Your task to perform on an android device: toggle show notifications on the lock screen Image 0: 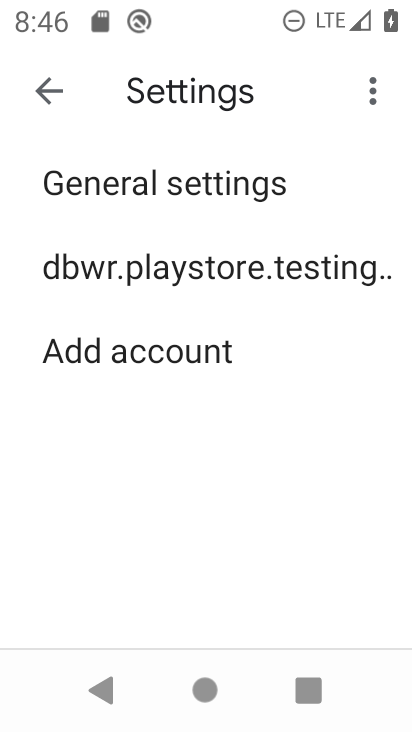
Step 0: press home button
Your task to perform on an android device: toggle show notifications on the lock screen Image 1: 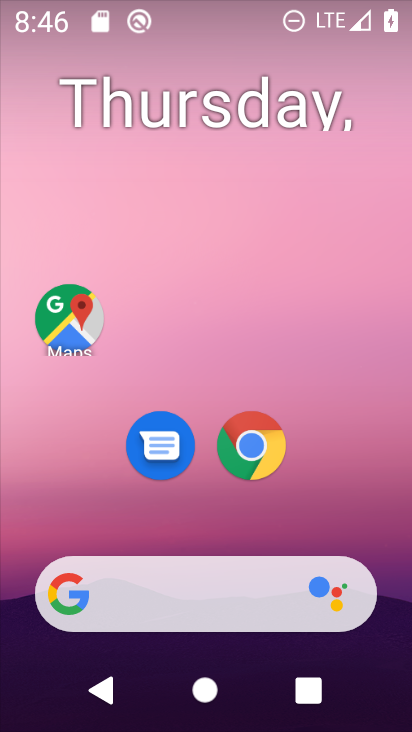
Step 1: drag from (395, 617) to (326, 88)
Your task to perform on an android device: toggle show notifications on the lock screen Image 2: 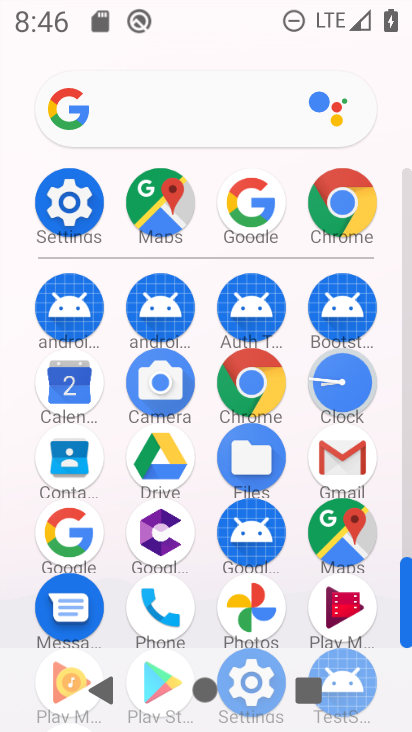
Step 2: click (68, 201)
Your task to perform on an android device: toggle show notifications on the lock screen Image 3: 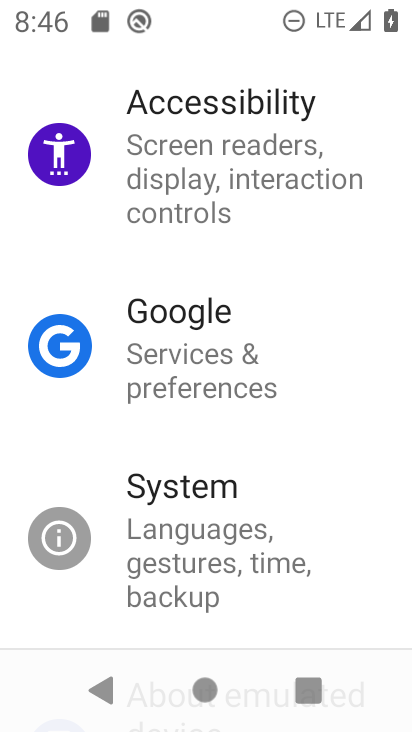
Step 3: drag from (179, 153) to (201, 606)
Your task to perform on an android device: toggle show notifications on the lock screen Image 4: 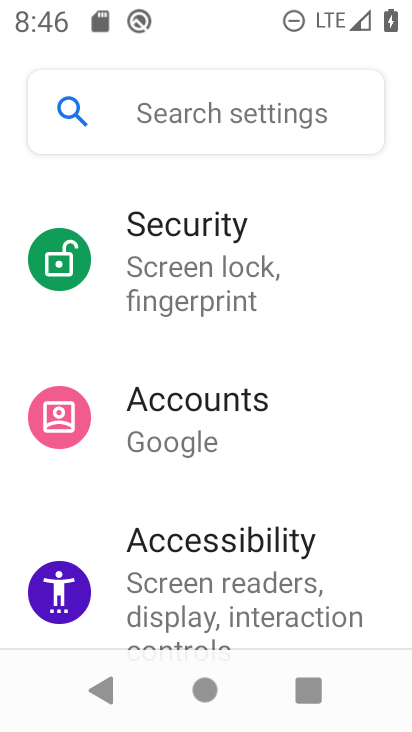
Step 4: drag from (200, 239) to (205, 634)
Your task to perform on an android device: toggle show notifications on the lock screen Image 5: 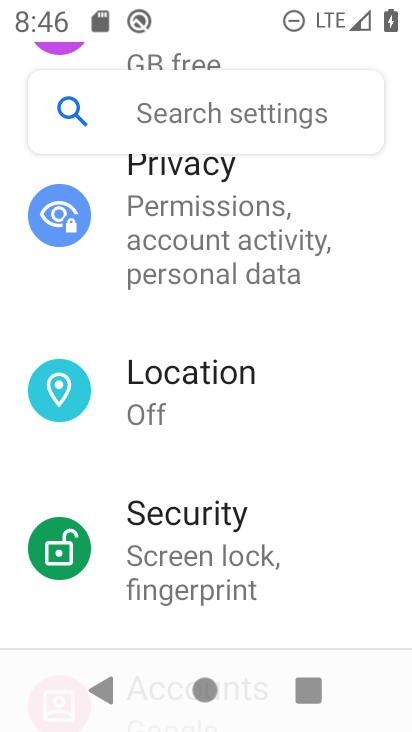
Step 5: drag from (195, 239) to (216, 660)
Your task to perform on an android device: toggle show notifications on the lock screen Image 6: 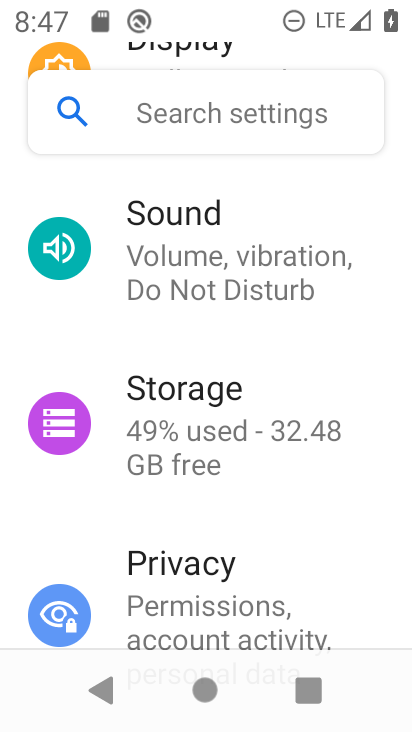
Step 6: drag from (236, 255) to (242, 668)
Your task to perform on an android device: toggle show notifications on the lock screen Image 7: 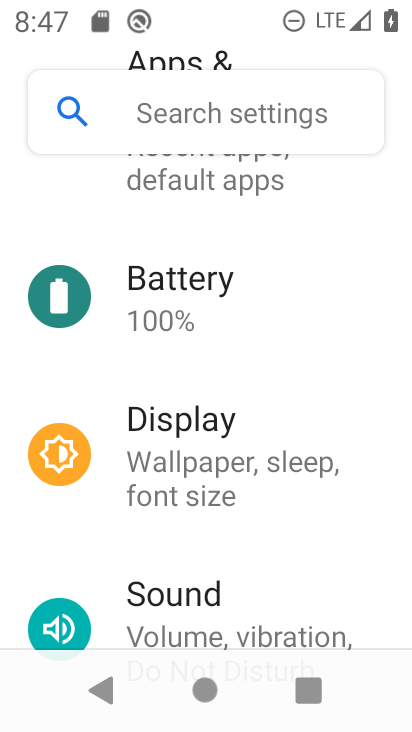
Step 7: drag from (231, 254) to (227, 587)
Your task to perform on an android device: toggle show notifications on the lock screen Image 8: 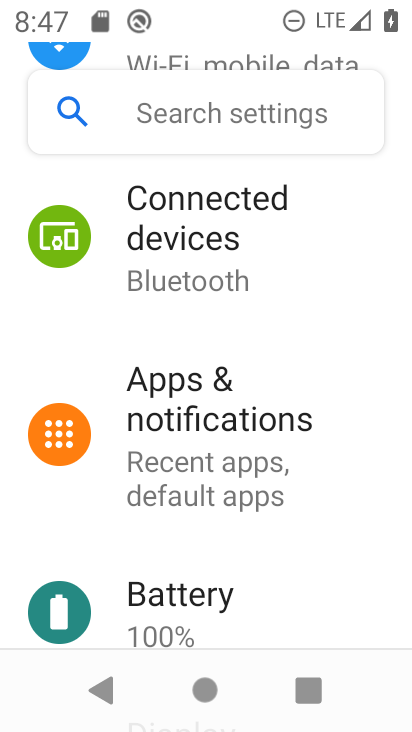
Step 8: click (218, 453)
Your task to perform on an android device: toggle show notifications on the lock screen Image 9: 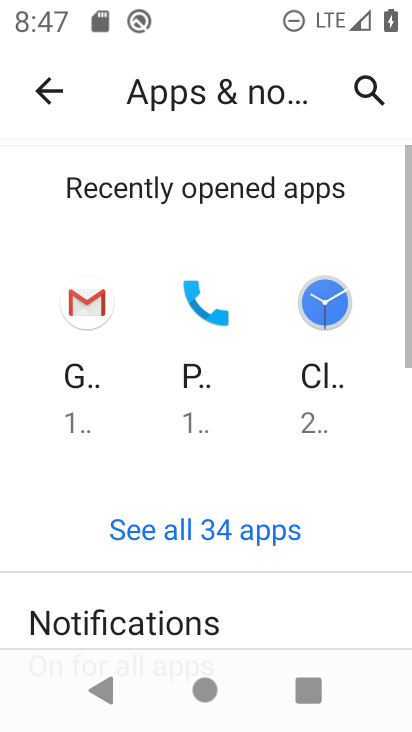
Step 9: click (194, 615)
Your task to perform on an android device: toggle show notifications on the lock screen Image 10: 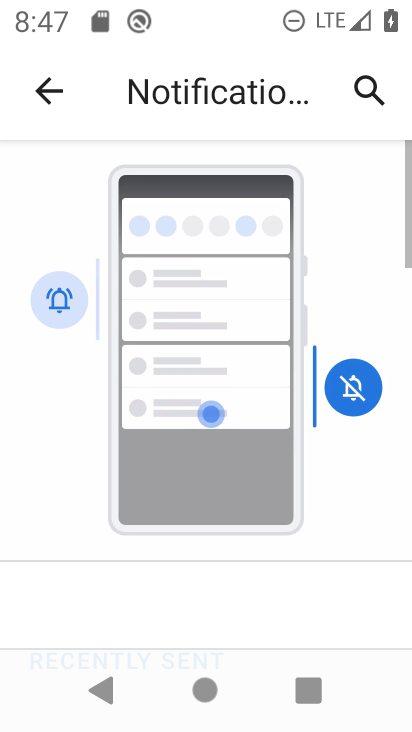
Step 10: click (189, 595)
Your task to perform on an android device: toggle show notifications on the lock screen Image 11: 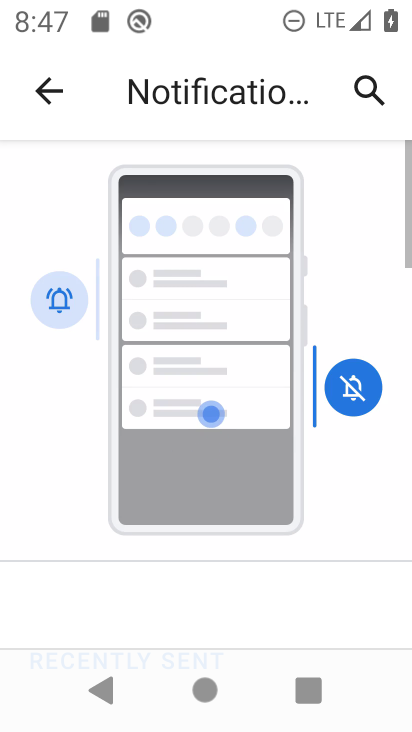
Step 11: drag from (209, 517) to (286, 136)
Your task to perform on an android device: toggle show notifications on the lock screen Image 12: 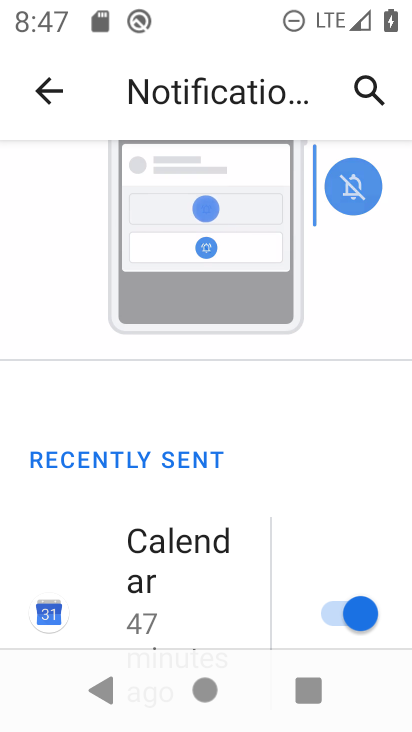
Step 12: drag from (112, 626) to (233, 97)
Your task to perform on an android device: toggle show notifications on the lock screen Image 13: 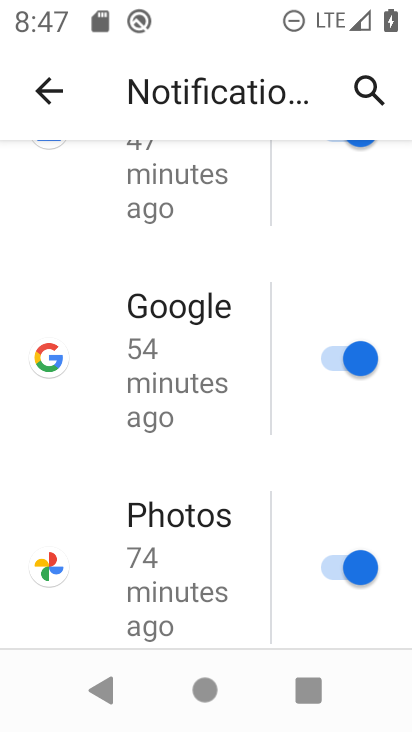
Step 13: drag from (131, 591) to (222, 60)
Your task to perform on an android device: toggle show notifications on the lock screen Image 14: 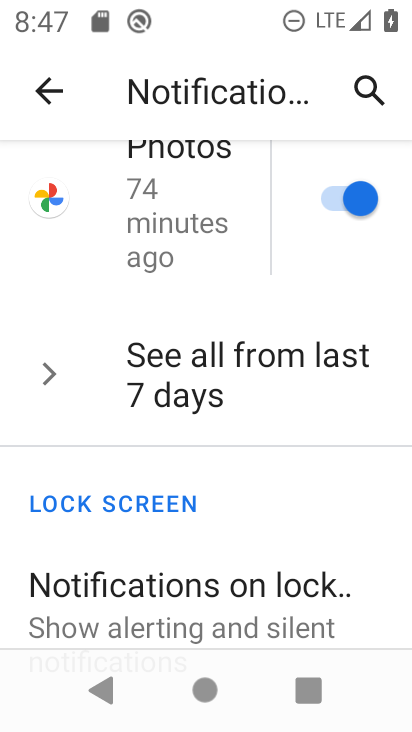
Step 14: click (203, 610)
Your task to perform on an android device: toggle show notifications on the lock screen Image 15: 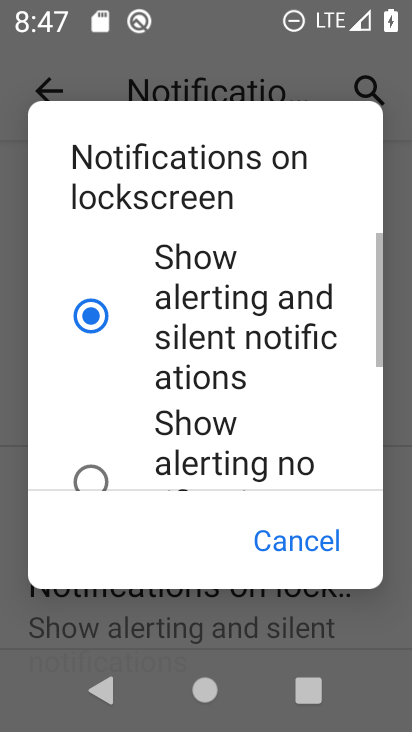
Step 15: drag from (132, 455) to (173, 130)
Your task to perform on an android device: toggle show notifications on the lock screen Image 16: 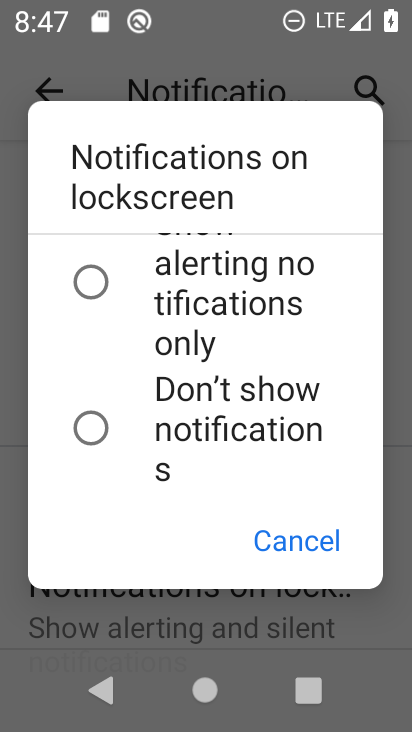
Step 16: click (84, 422)
Your task to perform on an android device: toggle show notifications on the lock screen Image 17: 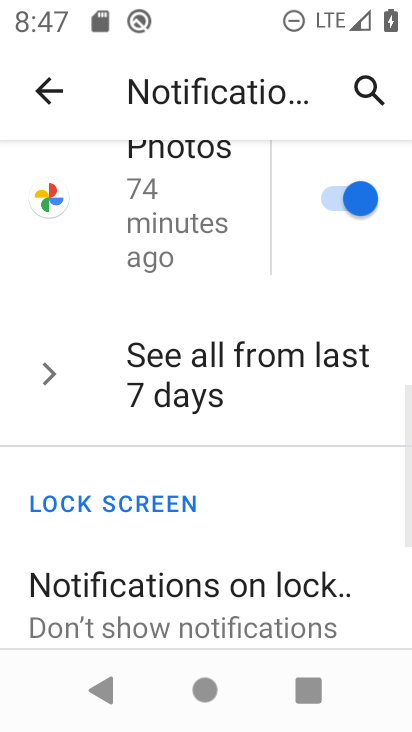
Step 17: task complete